Your task to perform on an android device: toggle translation in the chrome app Image 0: 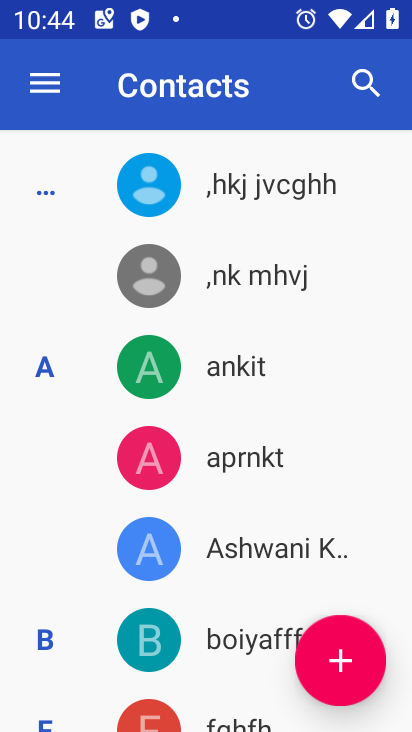
Step 0: press home button
Your task to perform on an android device: toggle translation in the chrome app Image 1: 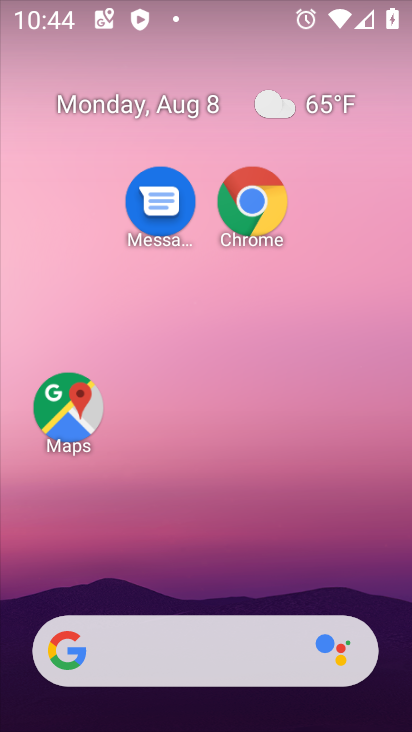
Step 1: drag from (210, 576) to (203, 99)
Your task to perform on an android device: toggle translation in the chrome app Image 2: 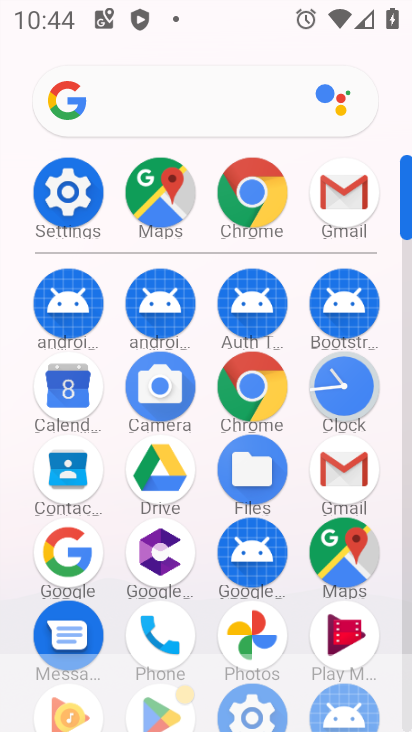
Step 2: click (250, 195)
Your task to perform on an android device: toggle translation in the chrome app Image 3: 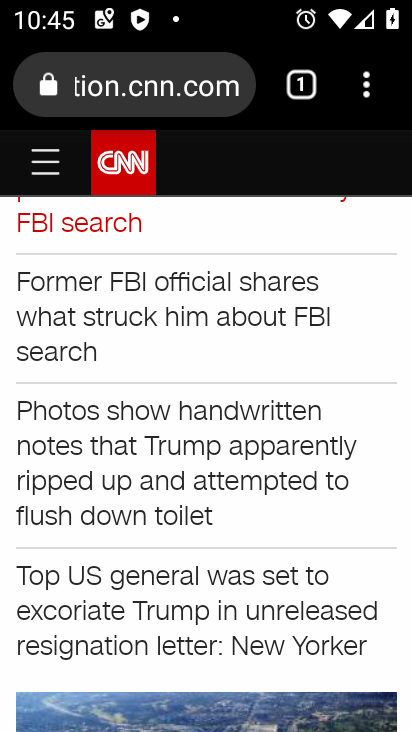
Step 3: click (367, 82)
Your task to perform on an android device: toggle translation in the chrome app Image 4: 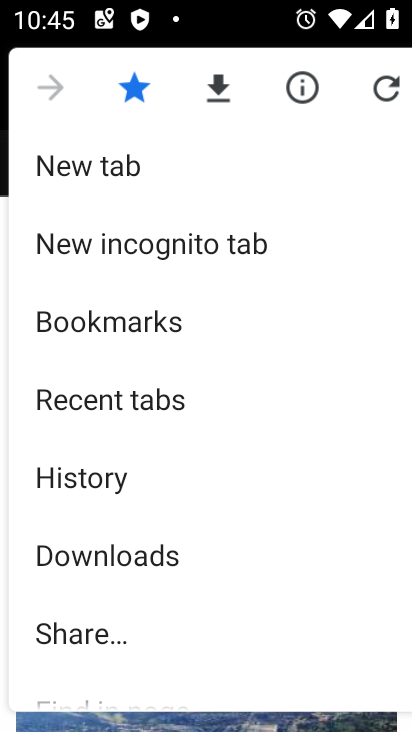
Step 4: drag from (187, 610) to (183, 53)
Your task to perform on an android device: toggle translation in the chrome app Image 5: 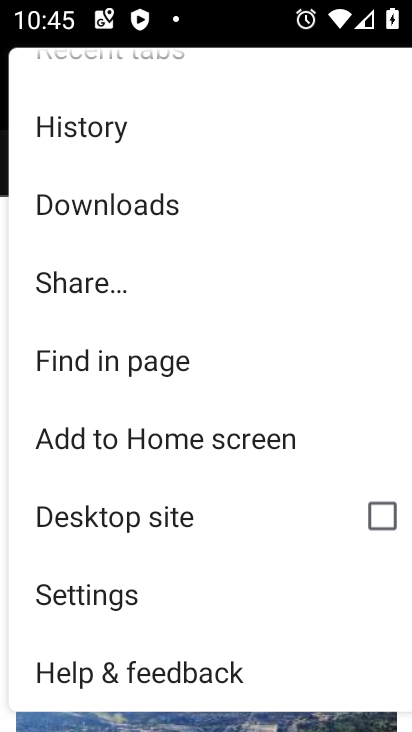
Step 5: click (142, 594)
Your task to perform on an android device: toggle translation in the chrome app Image 6: 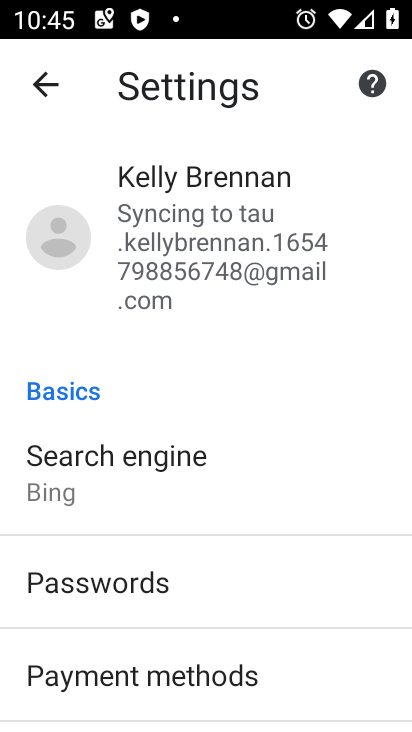
Step 6: drag from (237, 701) to (253, 133)
Your task to perform on an android device: toggle translation in the chrome app Image 7: 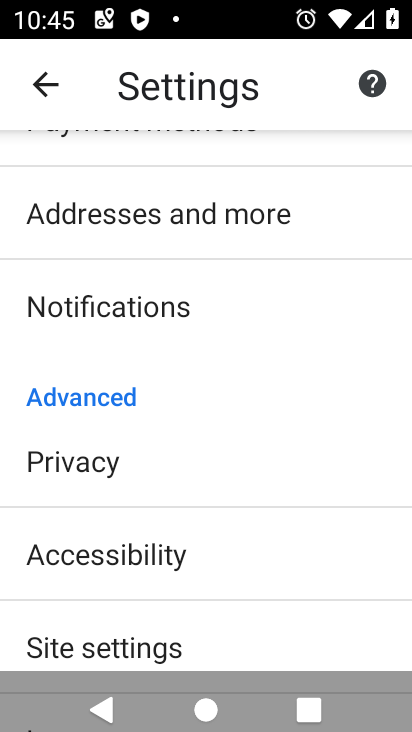
Step 7: drag from (225, 629) to (230, 189)
Your task to perform on an android device: toggle translation in the chrome app Image 8: 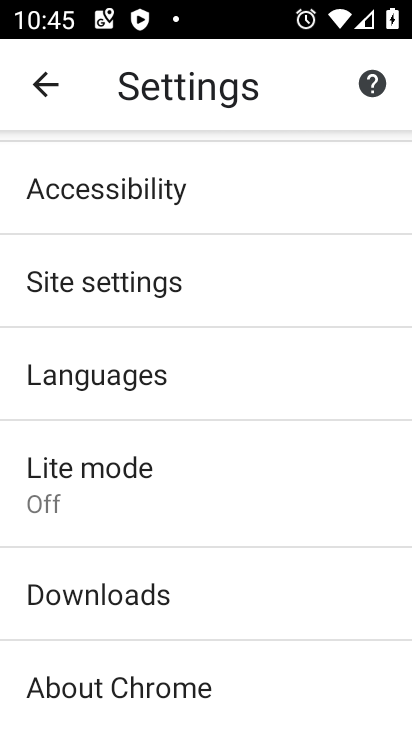
Step 8: click (177, 386)
Your task to perform on an android device: toggle translation in the chrome app Image 9: 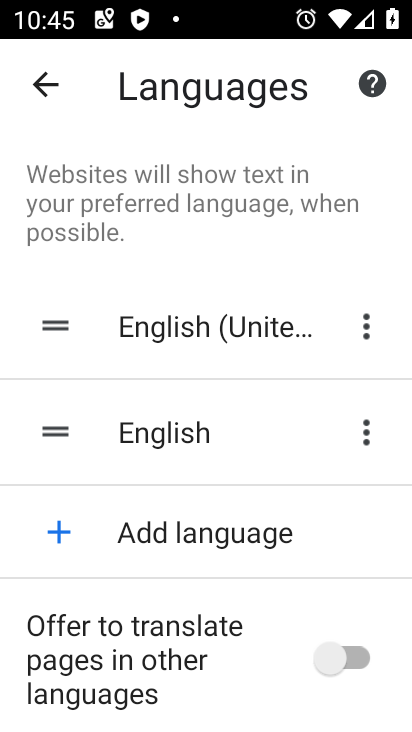
Step 9: click (352, 650)
Your task to perform on an android device: toggle translation in the chrome app Image 10: 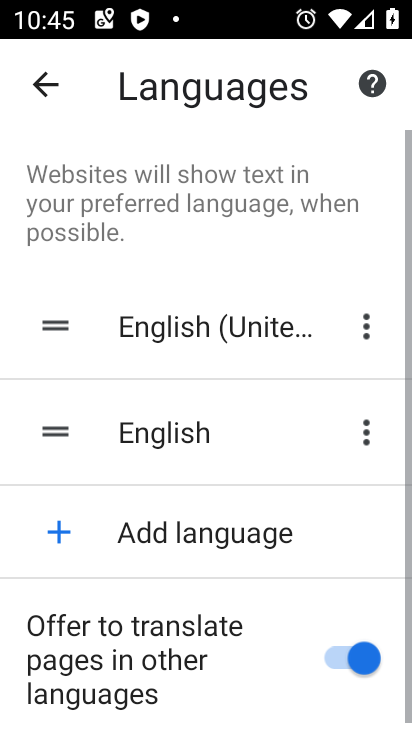
Step 10: task complete